Your task to perform on an android device: Is it going to rain tomorrow? Image 0: 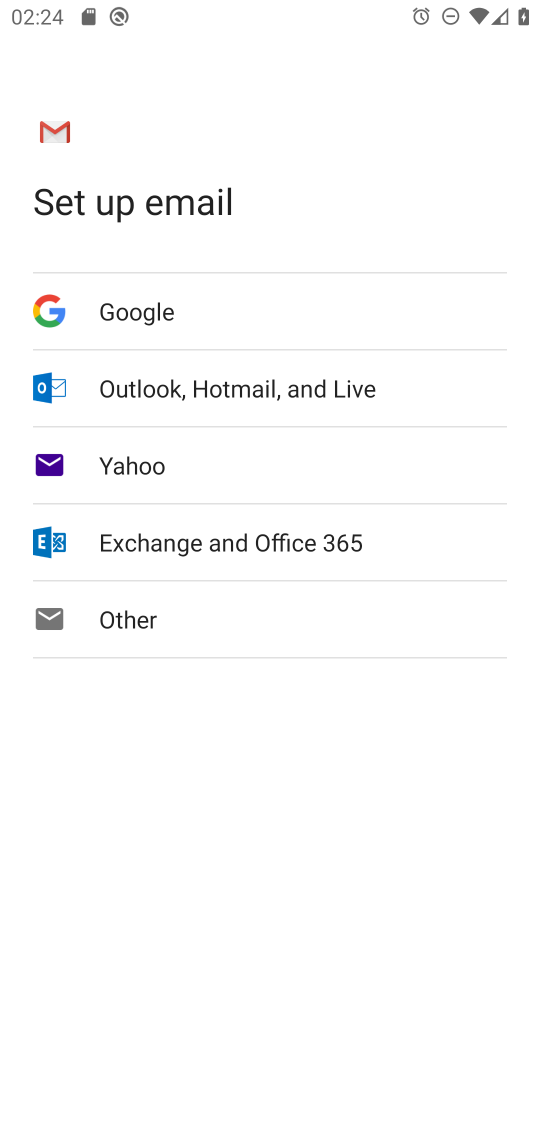
Step 0: press home button
Your task to perform on an android device: Is it going to rain tomorrow? Image 1: 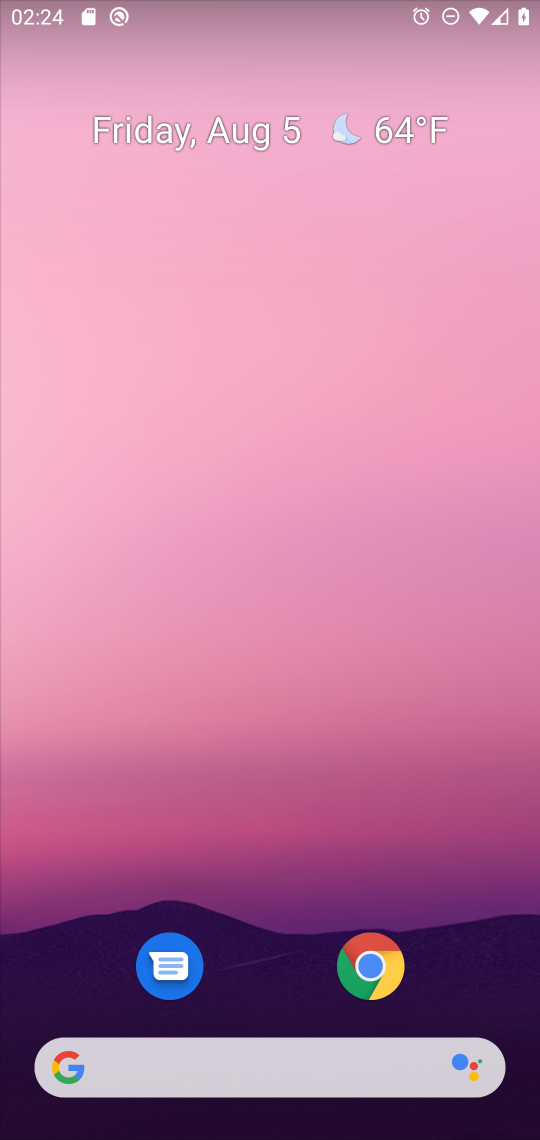
Step 1: click (391, 117)
Your task to perform on an android device: Is it going to rain tomorrow? Image 2: 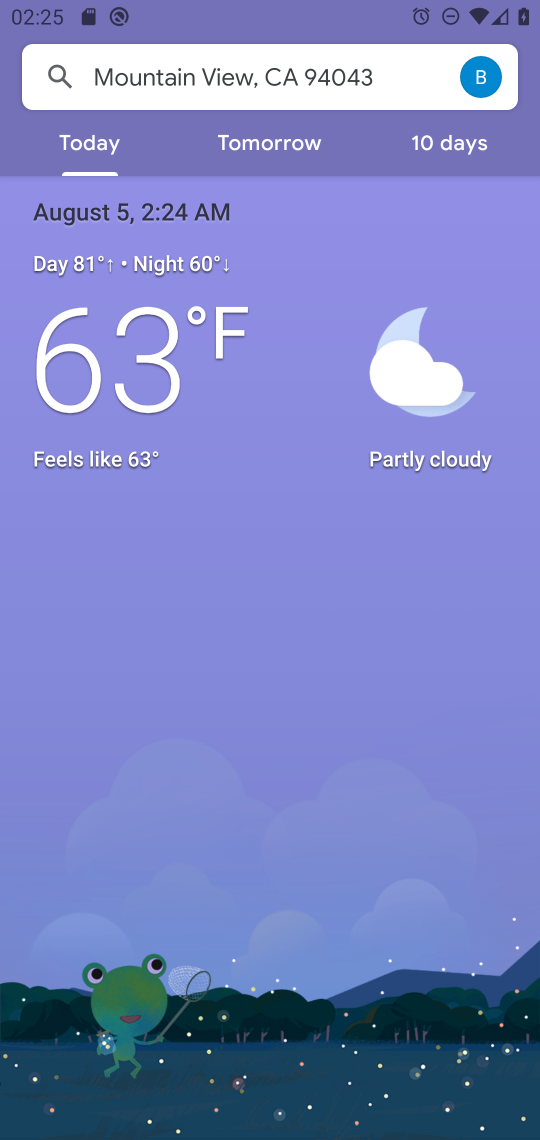
Step 2: task complete